Your task to perform on an android device: What's on my calendar today? Image 0: 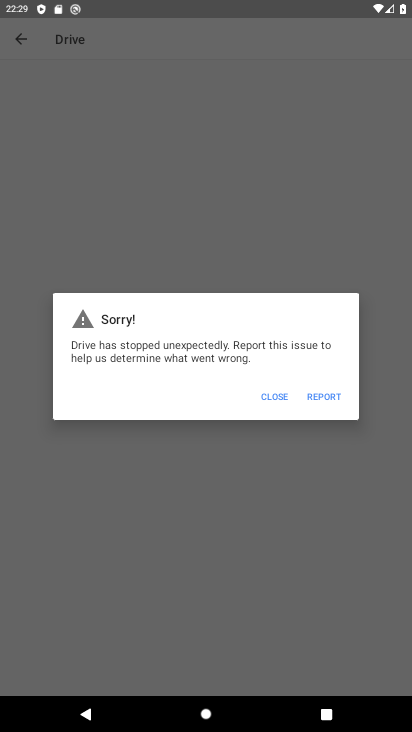
Step 0: press home button
Your task to perform on an android device: What's on my calendar today? Image 1: 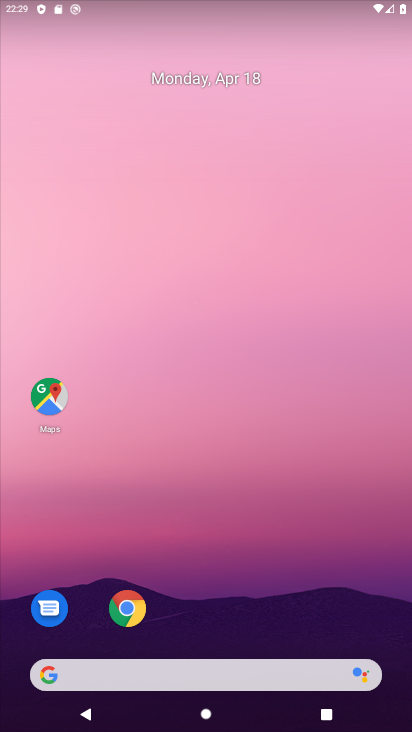
Step 1: drag from (237, 549) to (229, 209)
Your task to perform on an android device: What's on my calendar today? Image 2: 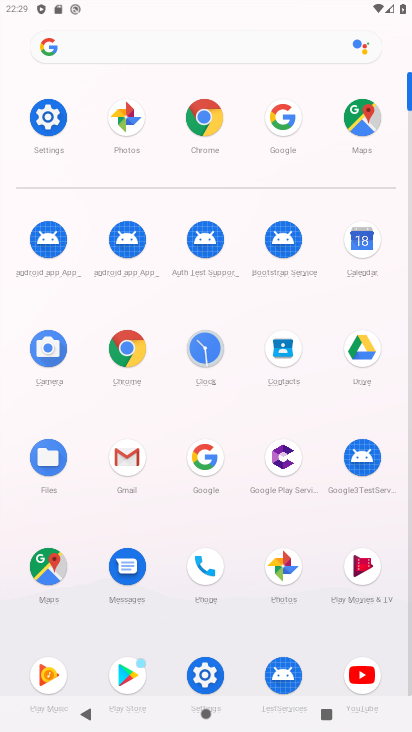
Step 2: click (365, 243)
Your task to perform on an android device: What's on my calendar today? Image 3: 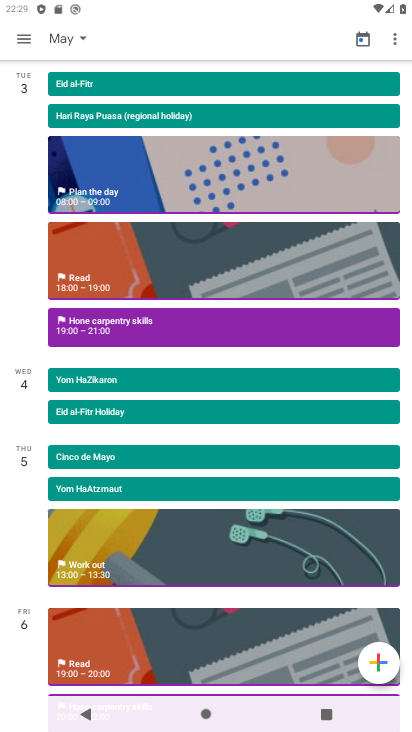
Step 3: click (84, 37)
Your task to perform on an android device: What's on my calendar today? Image 4: 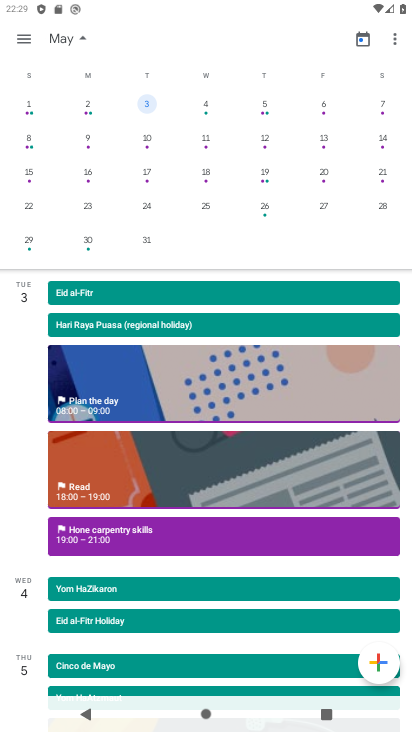
Step 4: drag from (43, 252) to (305, 63)
Your task to perform on an android device: What's on my calendar today? Image 5: 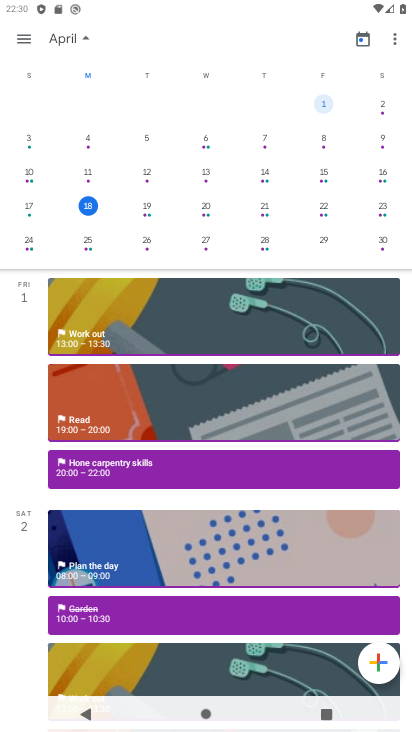
Step 5: click (91, 206)
Your task to perform on an android device: What's on my calendar today? Image 6: 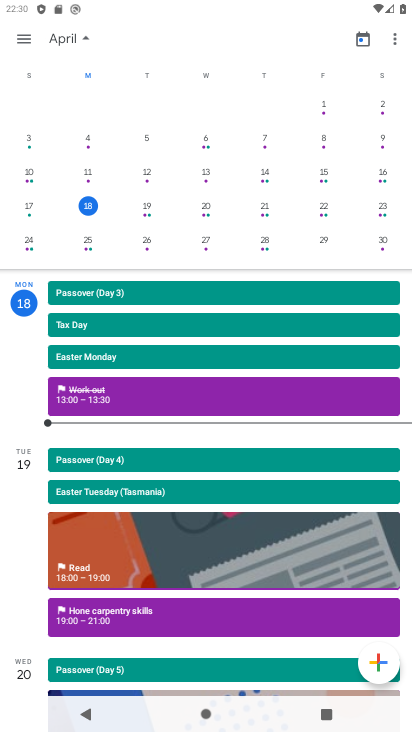
Step 6: task complete